Your task to perform on an android device: Open internet settings Image 0: 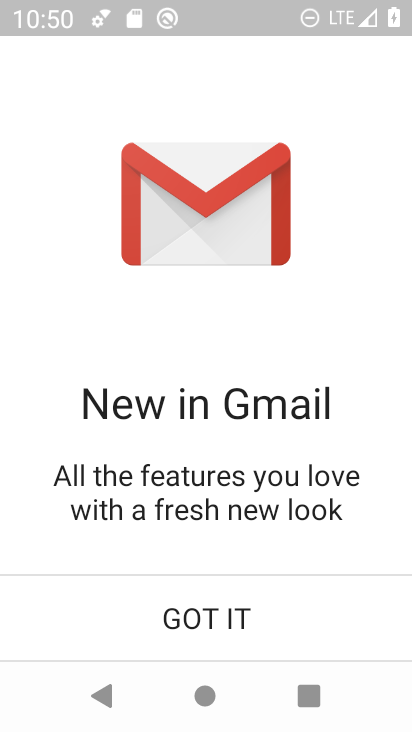
Step 0: press home button
Your task to perform on an android device: Open internet settings Image 1: 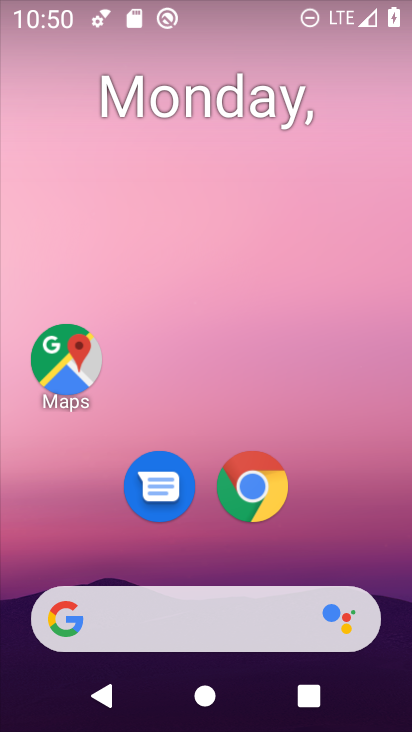
Step 1: drag from (13, 658) to (236, 167)
Your task to perform on an android device: Open internet settings Image 2: 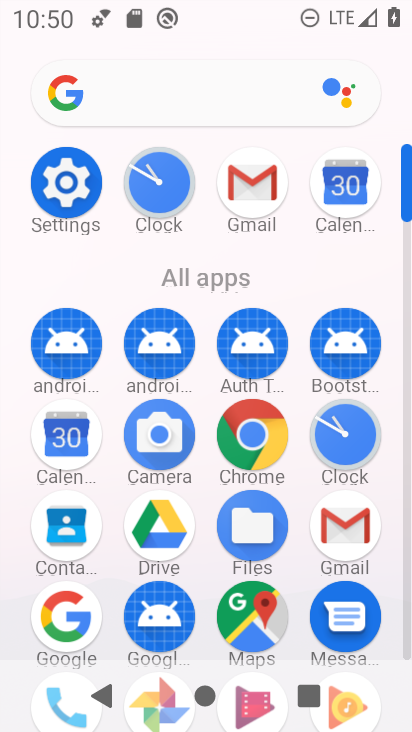
Step 2: click (57, 191)
Your task to perform on an android device: Open internet settings Image 3: 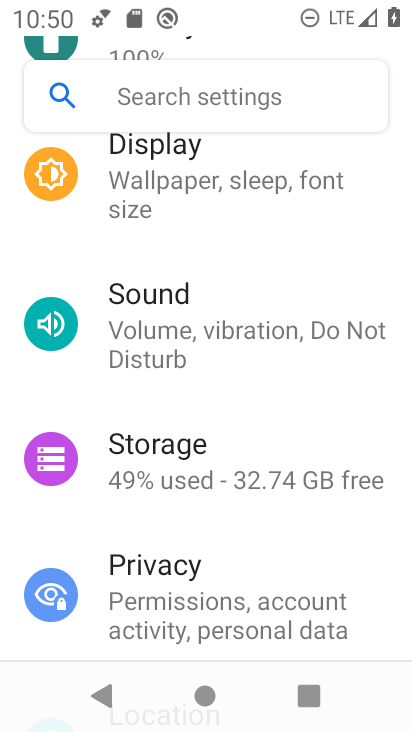
Step 3: drag from (160, 162) to (73, 571)
Your task to perform on an android device: Open internet settings Image 4: 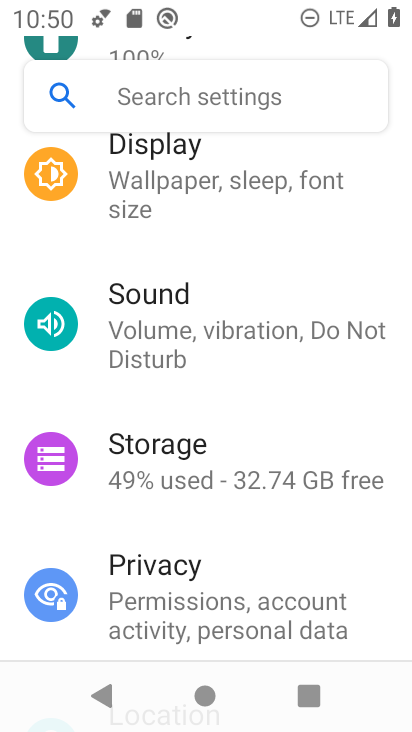
Step 4: drag from (85, 217) to (51, 562)
Your task to perform on an android device: Open internet settings Image 5: 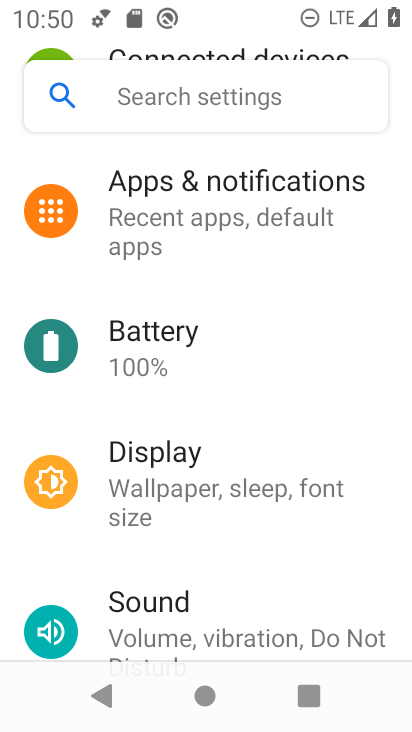
Step 5: drag from (155, 207) to (71, 577)
Your task to perform on an android device: Open internet settings Image 6: 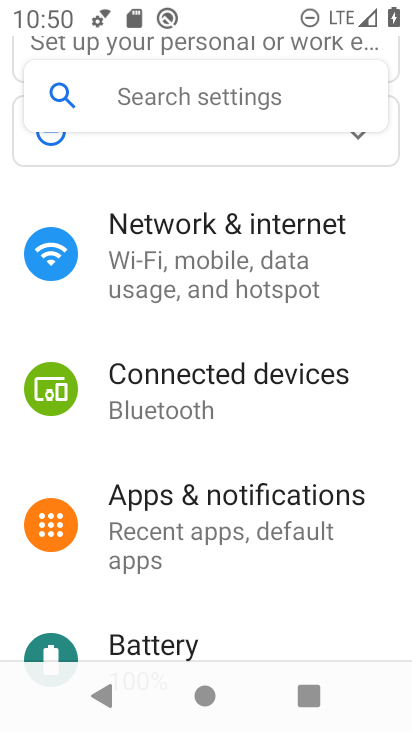
Step 6: click (184, 282)
Your task to perform on an android device: Open internet settings Image 7: 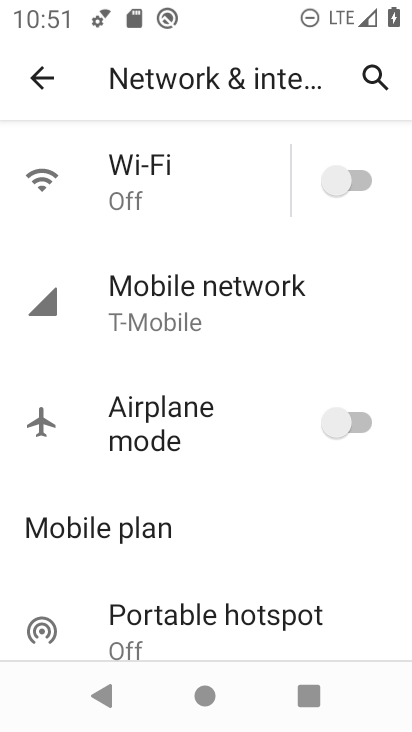
Step 7: click (175, 301)
Your task to perform on an android device: Open internet settings Image 8: 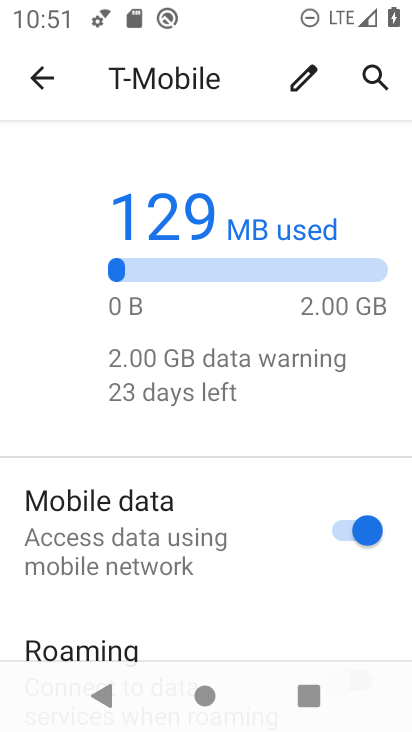
Step 8: task complete